Your task to perform on an android device: check google app version Image 0: 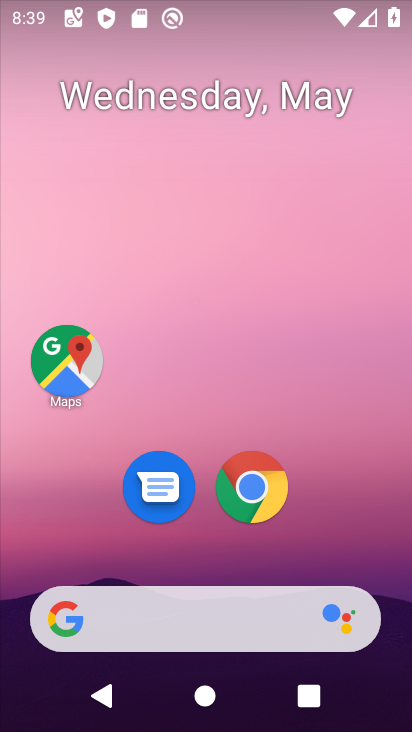
Step 0: drag from (215, 557) to (260, 6)
Your task to perform on an android device: check google app version Image 1: 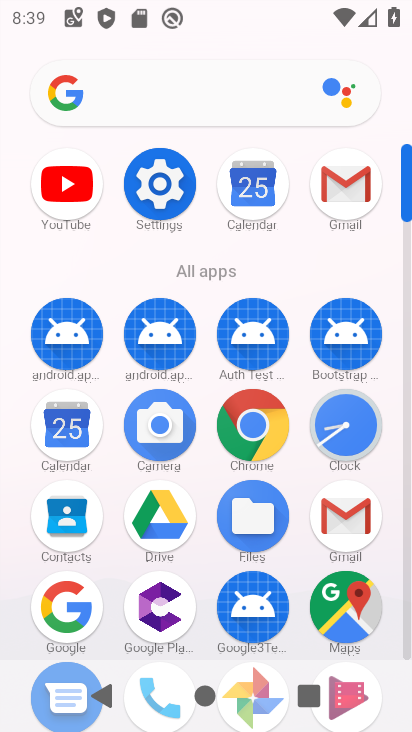
Step 1: click (62, 618)
Your task to perform on an android device: check google app version Image 2: 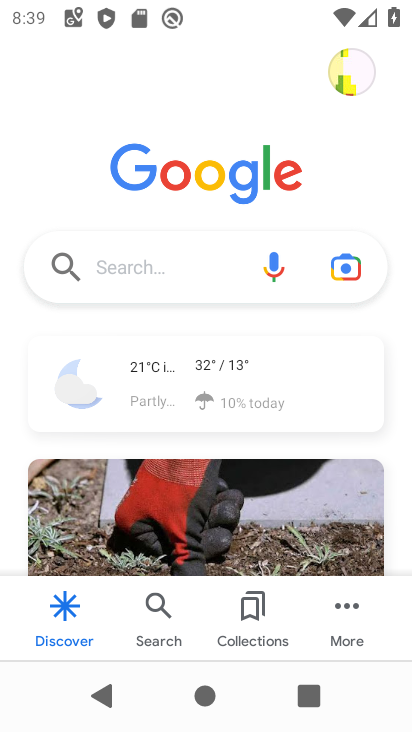
Step 2: click (334, 608)
Your task to perform on an android device: check google app version Image 3: 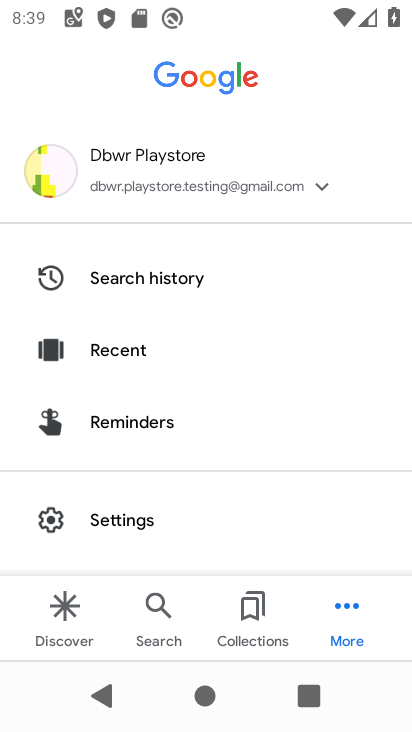
Step 3: click (172, 516)
Your task to perform on an android device: check google app version Image 4: 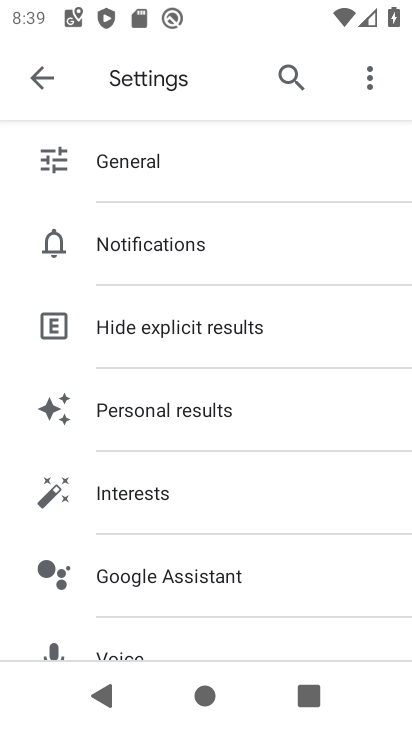
Step 4: drag from (167, 588) to (203, 218)
Your task to perform on an android device: check google app version Image 5: 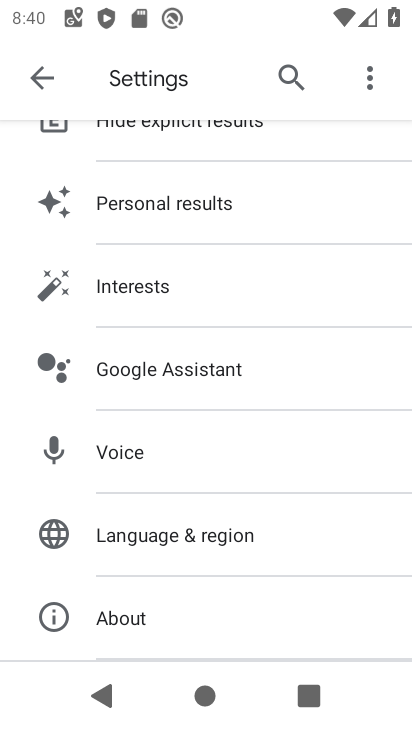
Step 5: click (161, 623)
Your task to perform on an android device: check google app version Image 6: 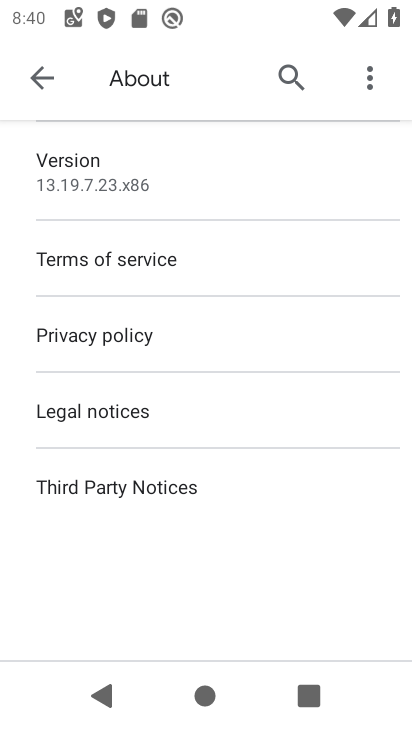
Step 6: task complete